Your task to perform on an android device: turn off javascript in the chrome app Image 0: 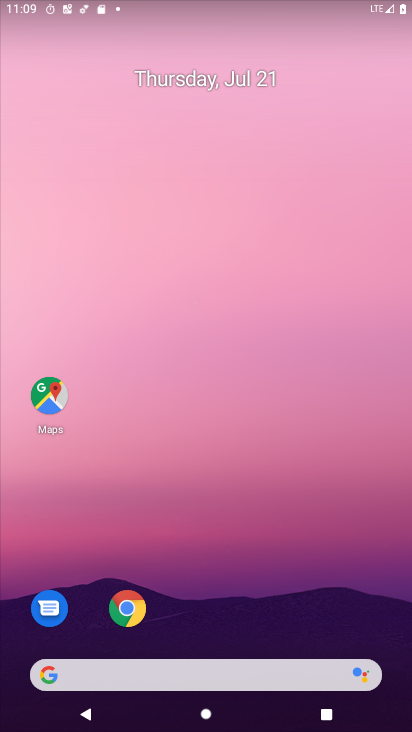
Step 0: drag from (218, 580) to (233, 219)
Your task to perform on an android device: turn off javascript in the chrome app Image 1: 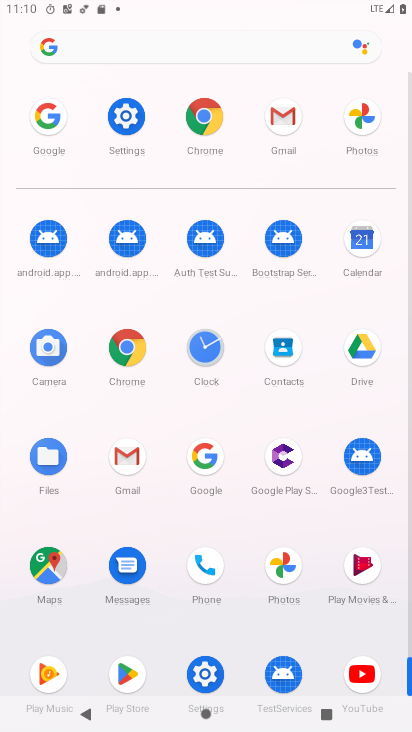
Step 1: drag from (228, 401) to (283, 47)
Your task to perform on an android device: turn off javascript in the chrome app Image 2: 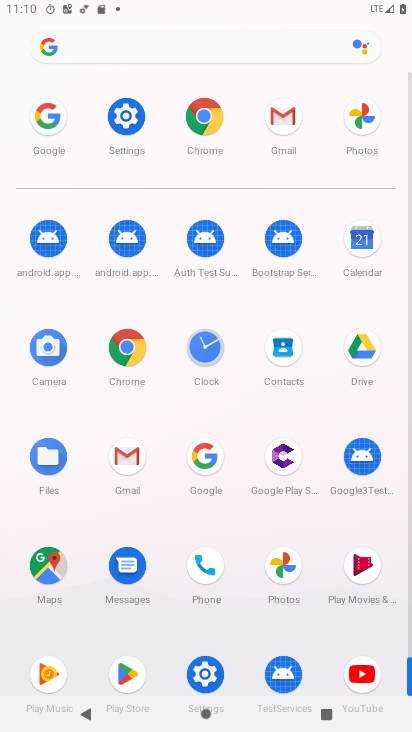
Step 2: click (132, 379)
Your task to perform on an android device: turn off javascript in the chrome app Image 3: 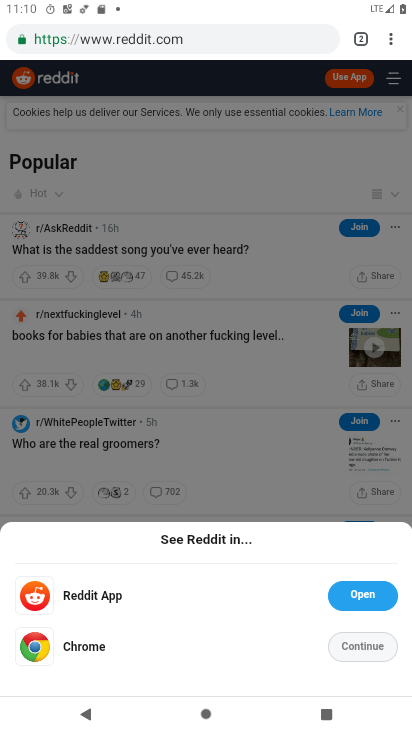
Step 3: click (389, 46)
Your task to perform on an android device: turn off javascript in the chrome app Image 4: 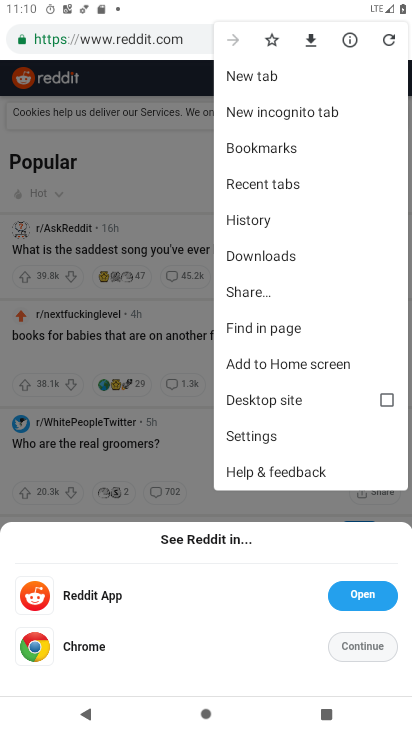
Step 4: click (251, 432)
Your task to perform on an android device: turn off javascript in the chrome app Image 5: 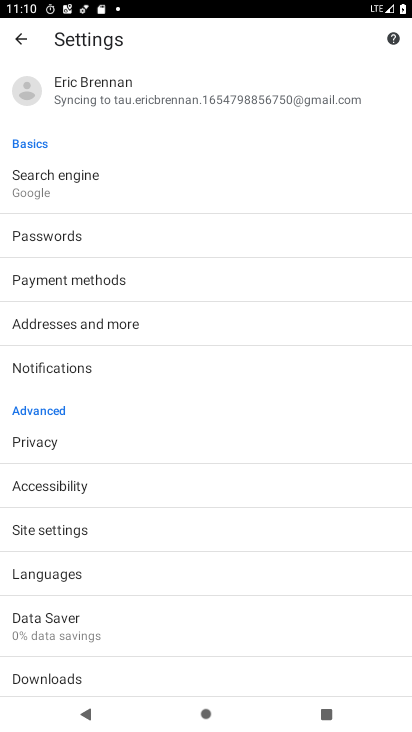
Step 5: click (58, 534)
Your task to perform on an android device: turn off javascript in the chrome app Image 6: 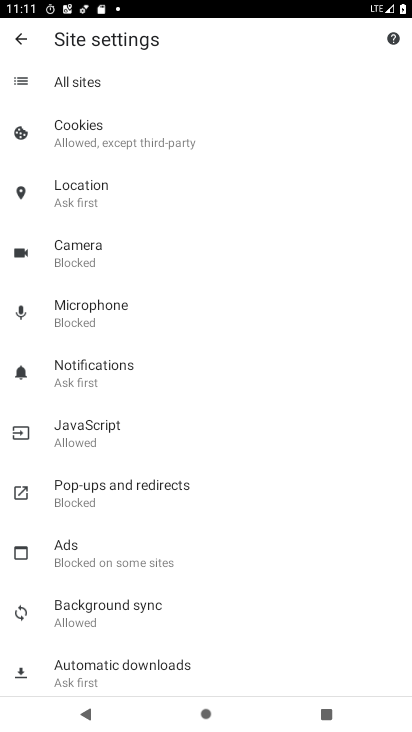
Step 6: click (88, 437)
Your task to perform on an android device: turn off javascript in the chrome app Image 7: 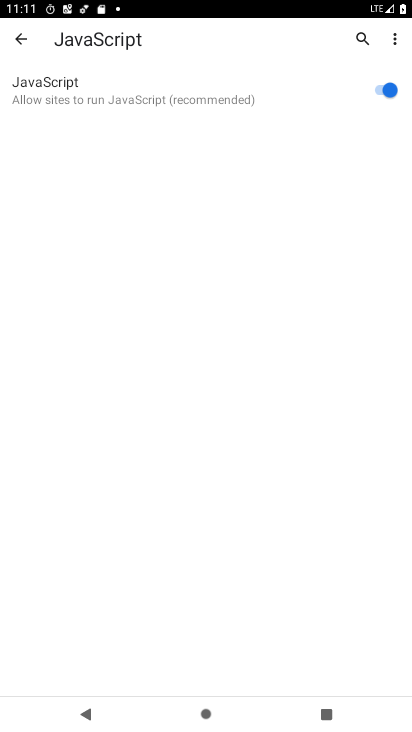
Step 7: click (366, 94)
Your task to perform on an android device: turn off javascript in the chrome app Image 8: 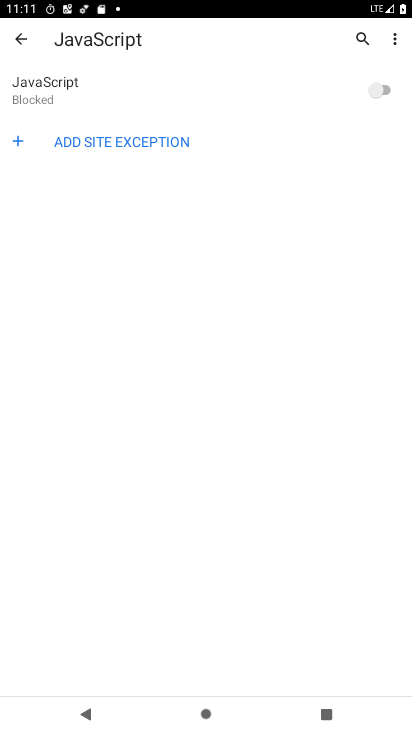
Step 8: task complete